Your task to perform on an android device: Go to Reddit.com Image 0: 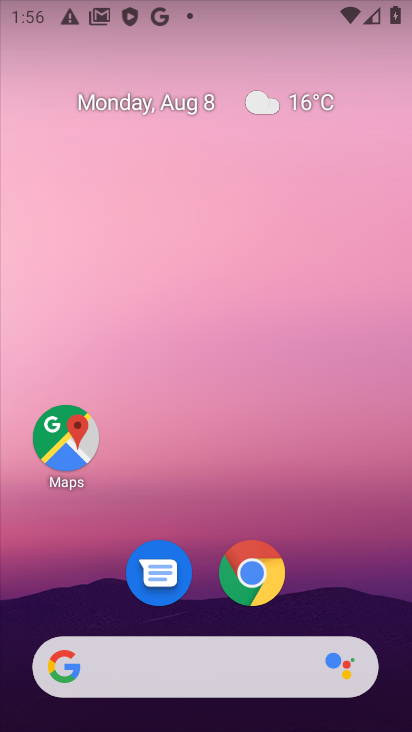
Step 0: click (256, 567)
Your task to perform on an android device: Go to Reddit.com Image 1: 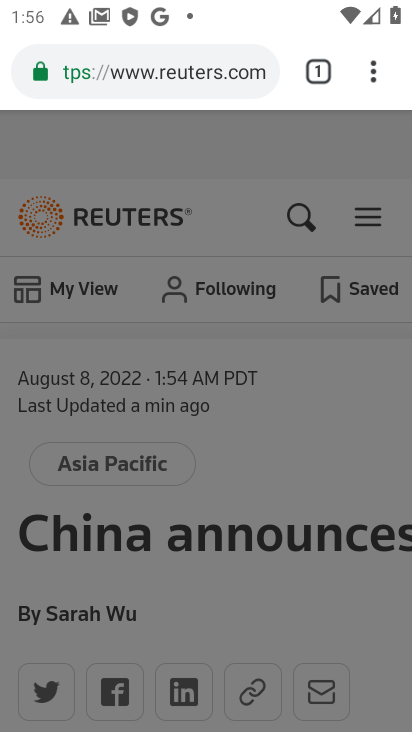
Step 1: click (270, 75)
Your task to perform on an android device: Go to Reddit.com Image 2: 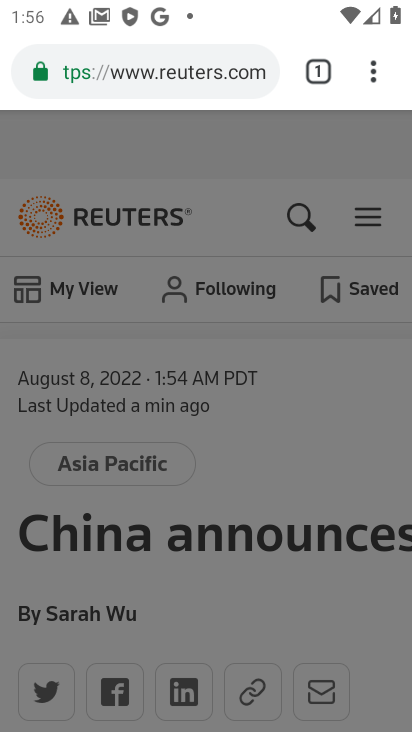
Step 2: click (259, 69)
Your task to perform on an android device: Go to Reddit.com Image 3: 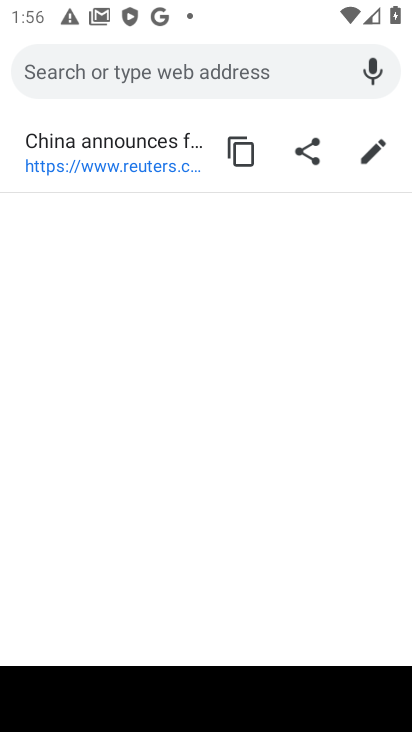
Step 3: type "Reddit.com"
Your task to perform on an android device: Go to Reddit.com Image 4: 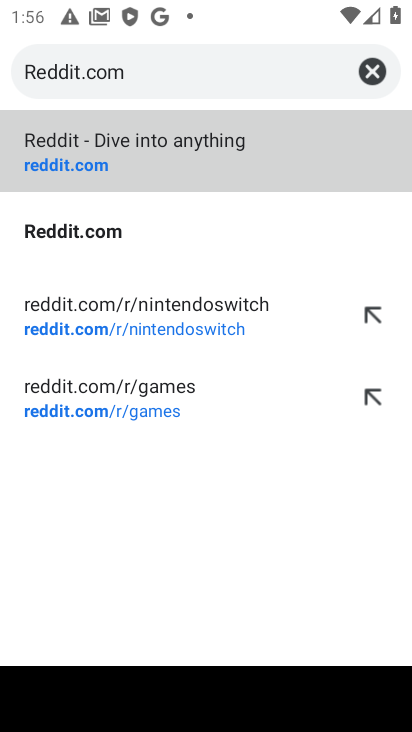
Step 4: click (117, 227)
Your task to perform on an android device: Go to Reddit.com Image 5: 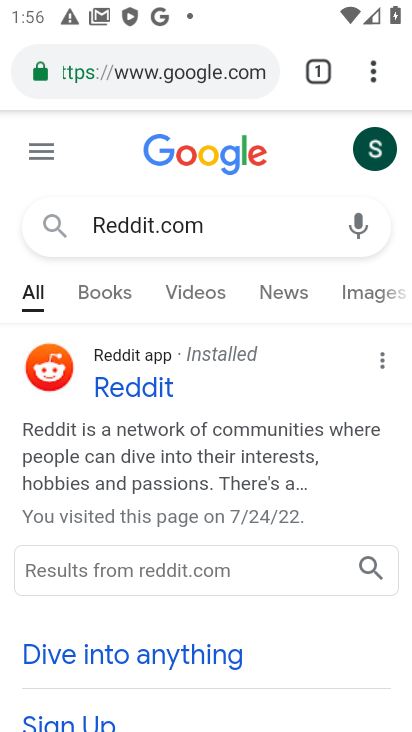
Step 5: drag from (200, 525) to (223, 434)
Your task to perform on an android device: Go to Reddit.com Image 6: 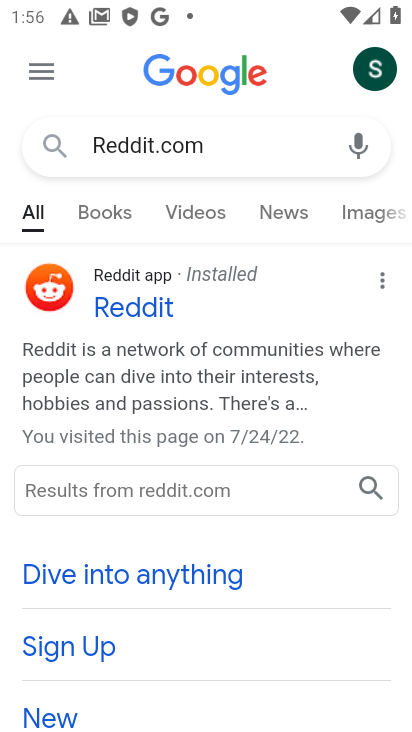
Step 6: click (166, 308)
Your task to perform on an android device: Go to Reddit.com Image 7: 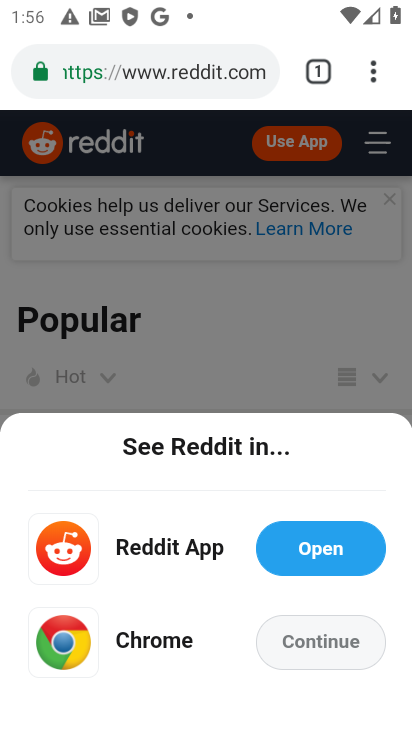
Step 7: click (331, 647)
Your task to perform on an android device: Go to Reddit.com Image 8: 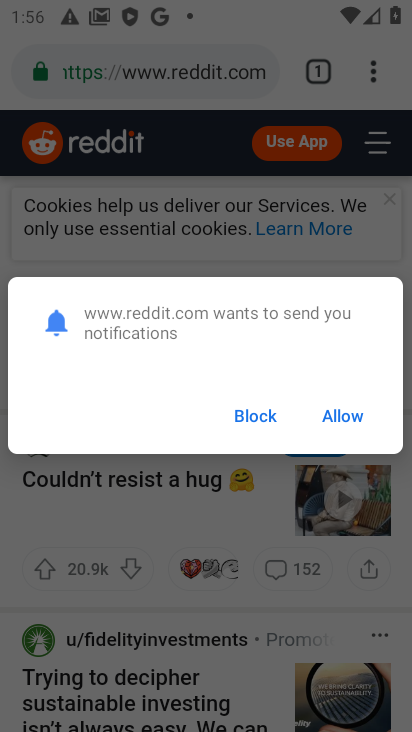
Step 8: click (343, 417)
Your task to perform on an android device: Go to Reddit.com Image 9: 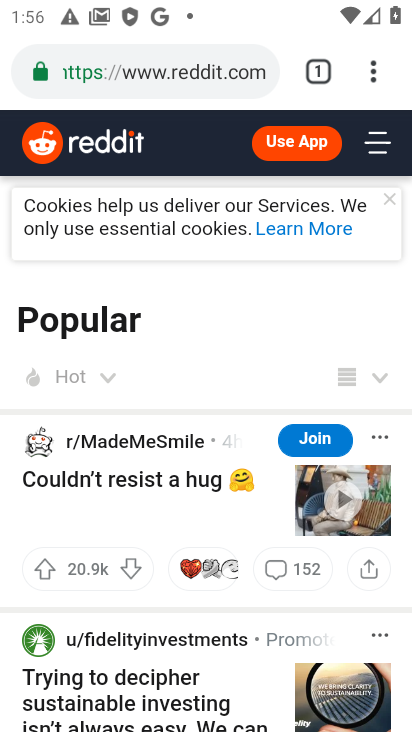
Step 9: task complete